Your task to perform on an android device: Open Google Maps Image 0: 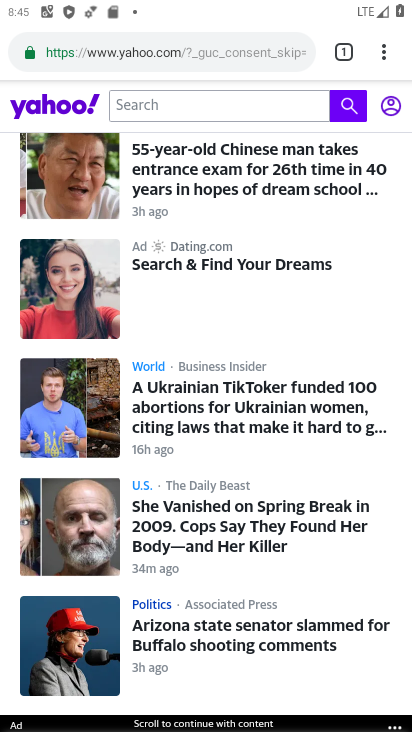
Step 0: press home button
Your task to perform on an android device: Open Google Maps Image 1: 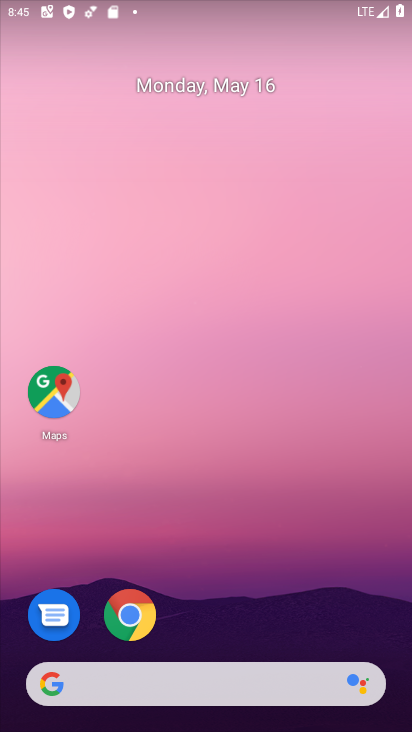
Step 1: drag from (157, 577) to (182, 337)
Your task to perform on an android device: Open Google Maps Image 2: 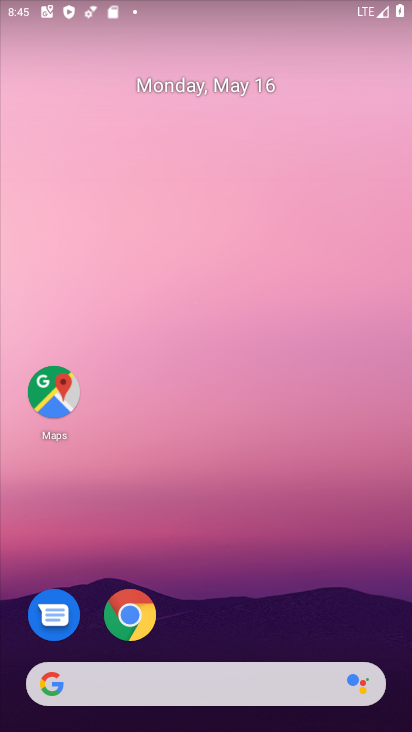
Step 2: click (62, 390)
Your task to perform on an android device: Open Google Maps Image 3: 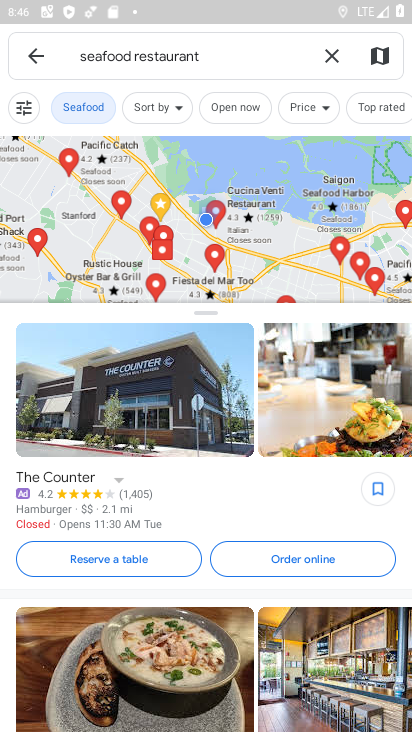
Step 3: click (55, 390)
Your task to perform on an android device: Open Google Maps Image 4: 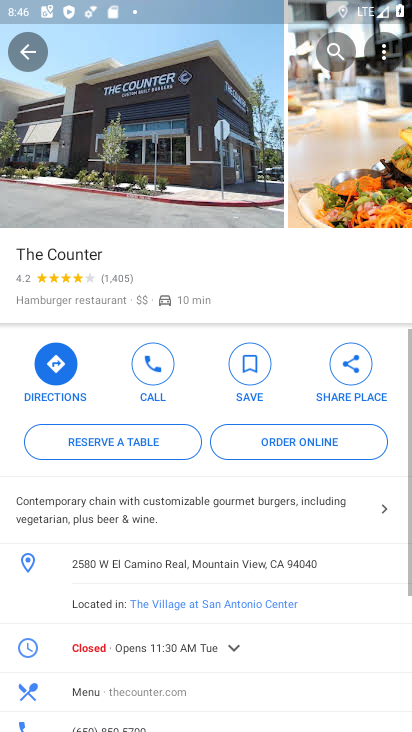
Step 4: task complete